Your task to perform on an android device: turn on the 24-hour format for clock Image 0: 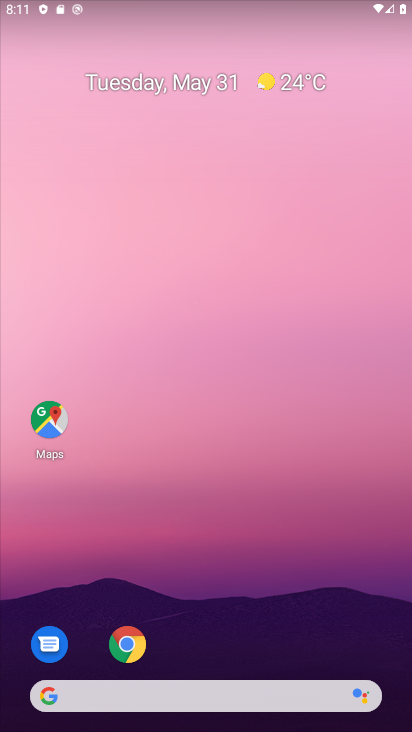
Step 0: drag from (259, 628) to (309, 37)
Your task to perform on an android device: turn on the 24-hour format for clock Image 1: 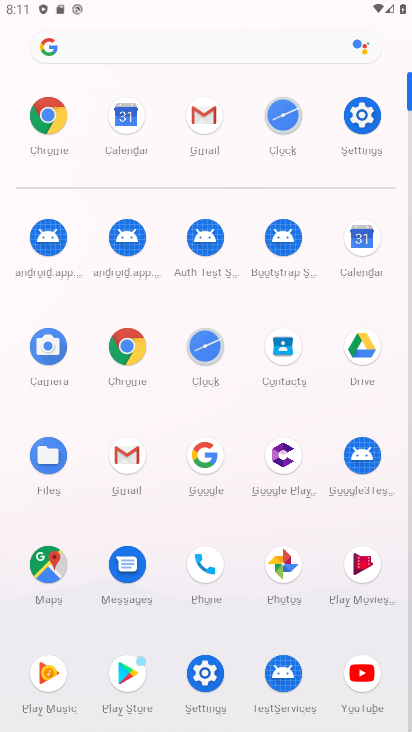
Step 1: click (202, 361)
Your task to perform on an android device: turn on the 24-hour format for clock Image 2: 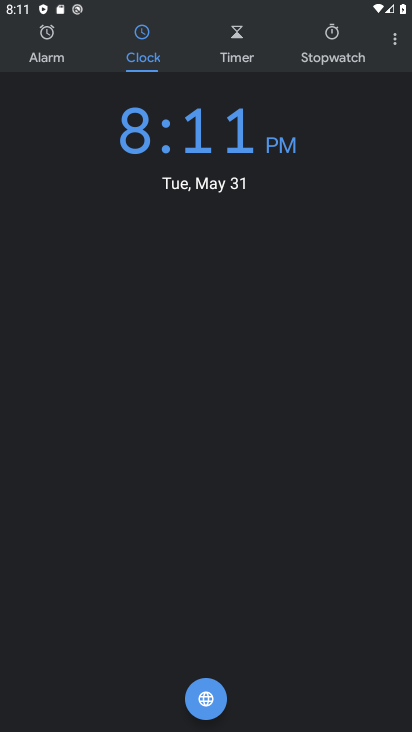
Step 2: click (394, 44)
Your task to perform on an android device: turn on the 24-hour format for clock Image 3: 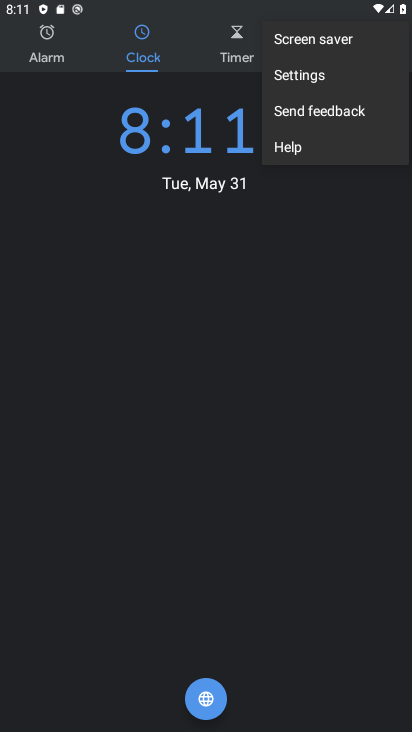
Step 3: click (329, 78)
Your task to perform on an android device: turn on the 24-hour format for clock Image 4: 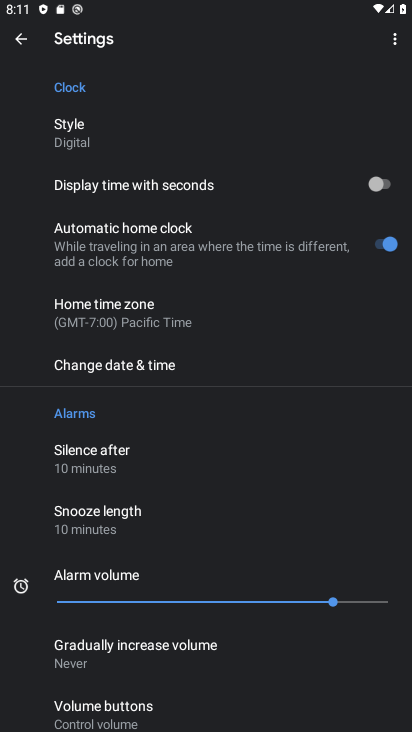
Step 4: click (220, 356)
Your task to perform on an android device: turn on the 24-hour format for clock Image 5: 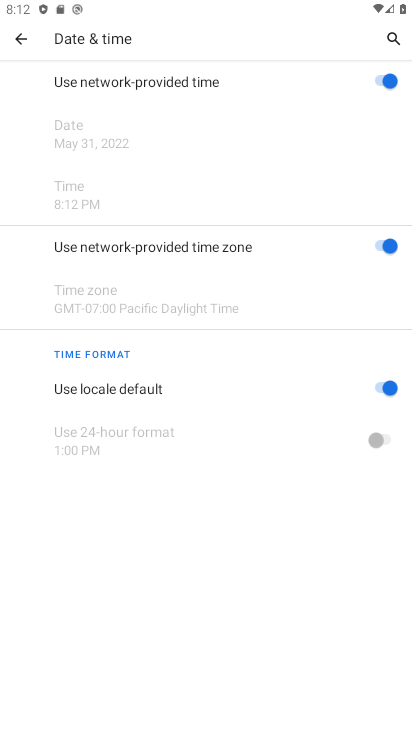
Step 5: click (380, 387)
Your task to perform on an android device: turn on the 24-hour format for clock Image 6: 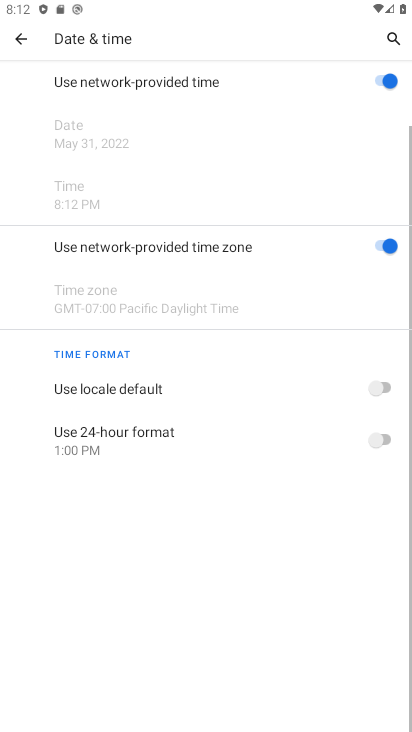
Step 6: click (391, 436)
Your task to perform on an android device: turn on the 24-hour format for clock Image 7: 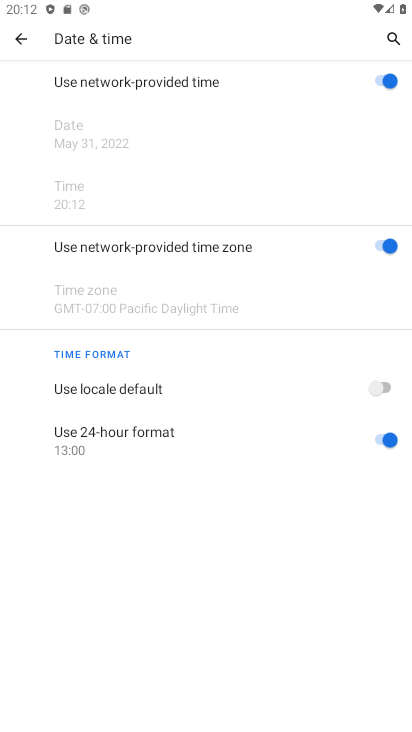
Step 7: task complete